Your task to perform on an android device: change the upload size in google photos Image 0: 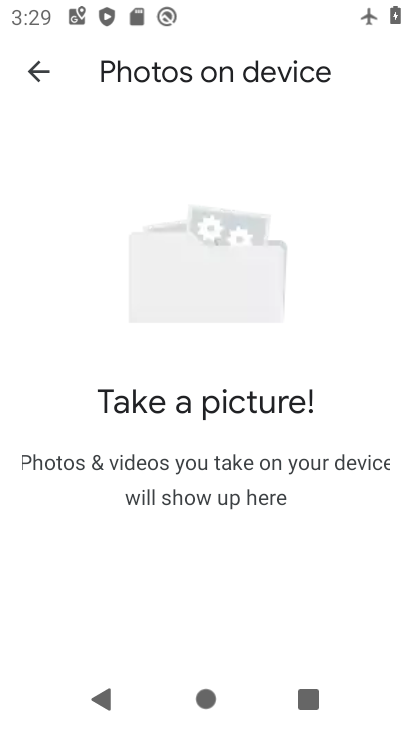
Step 0: press home button
Your task to perform on an android device: change the upload size in google photos Image 1: 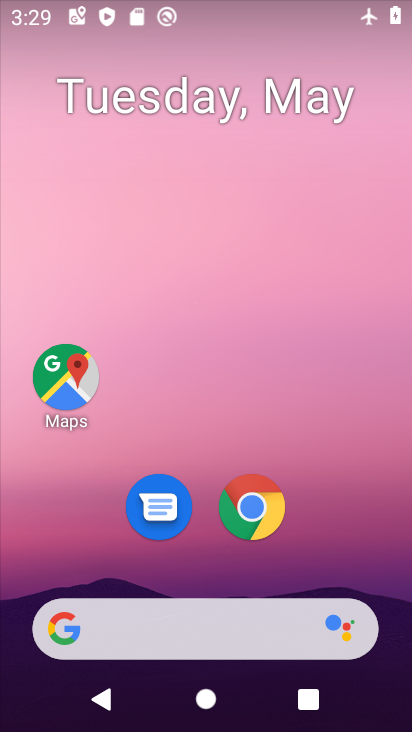
Step 1: drag from (210, 572) to (251, 11)
Your task to perform on an android device: change the upload size in google photos Image 2: 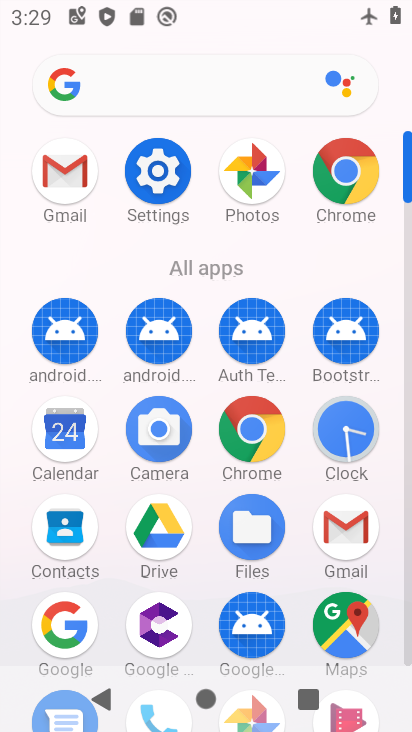
Step 2: click (256, 184)
Your task to perform on an android device: change the upload size in google photos Image 3: 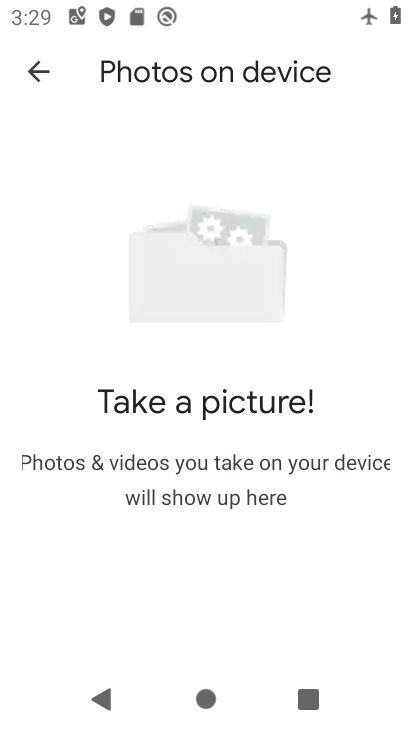
Step 3: click (54, 78)
Your task to perform on an android device: change the upload size in google photos Image 4: 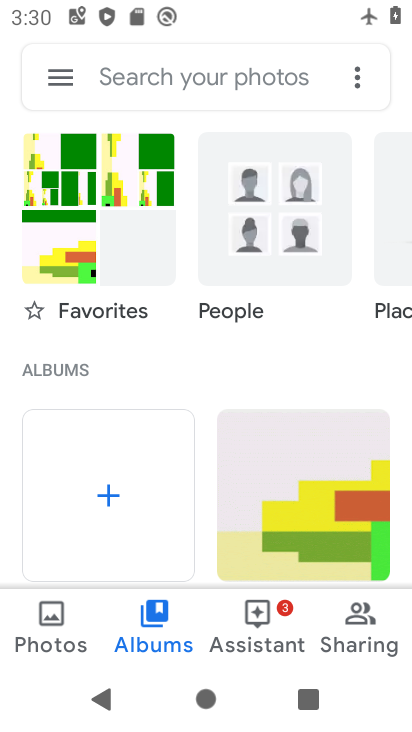
Step 4: click (56, 75)
Your task to perform on an android device: change the upload size in google photos Image 5: 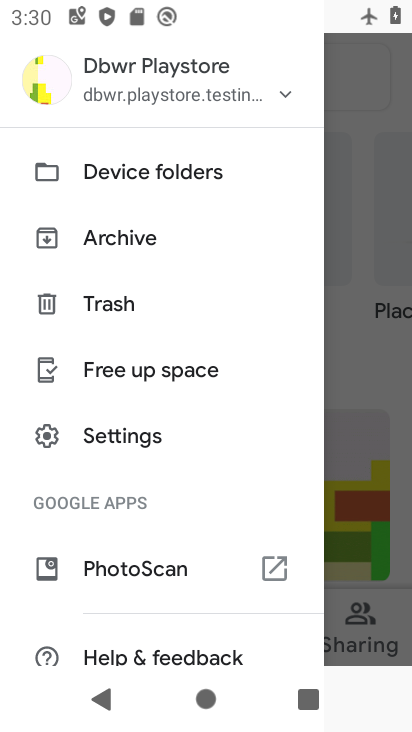
Step 5: click (94, 423)
Your task to perform on an android device: change the upload size in google photos Image 6: 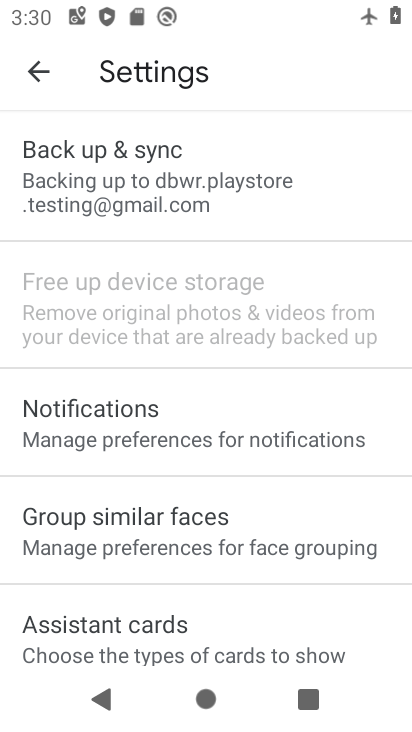
Step 6: click (105, 197)
Your task to perform on an android device: change the upload size in google photos Image 7: 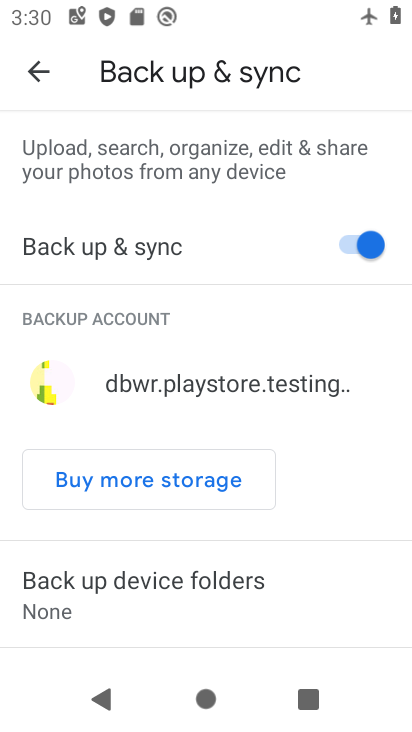
Step 7: drag from (201, 571) to (206, 251)
Your task to perform on an android device: change the upload size in google photos Image 8: 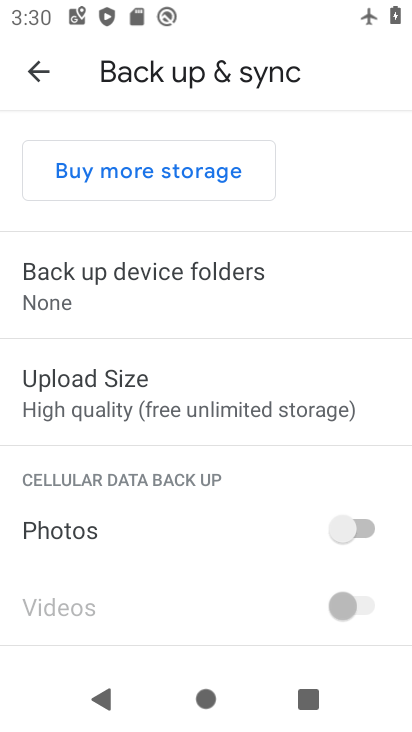
Step 8: click (140, 404)
Your task to perform on an android device: change the upload size in google photos Image 9: 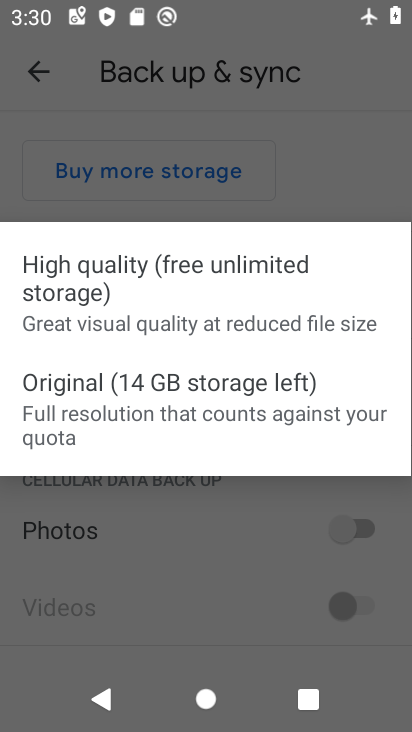
Step 9: click (145, 394)
Your task to perform on an android device: change the upload size in google photos Image 10: 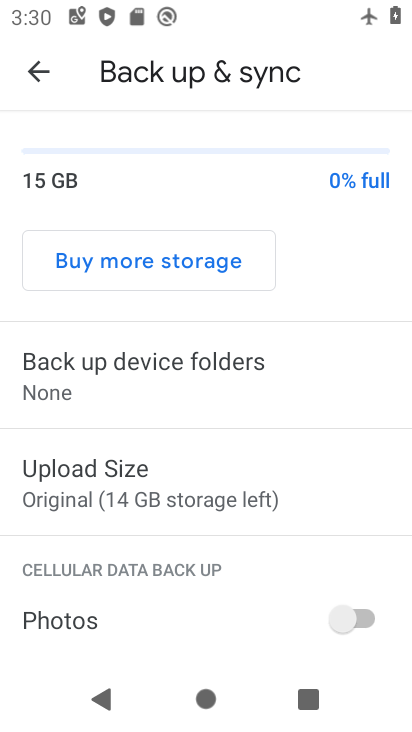
Step 10: task complete